Your task to perform on an android device: open a new tab in the chrome app Image 0: 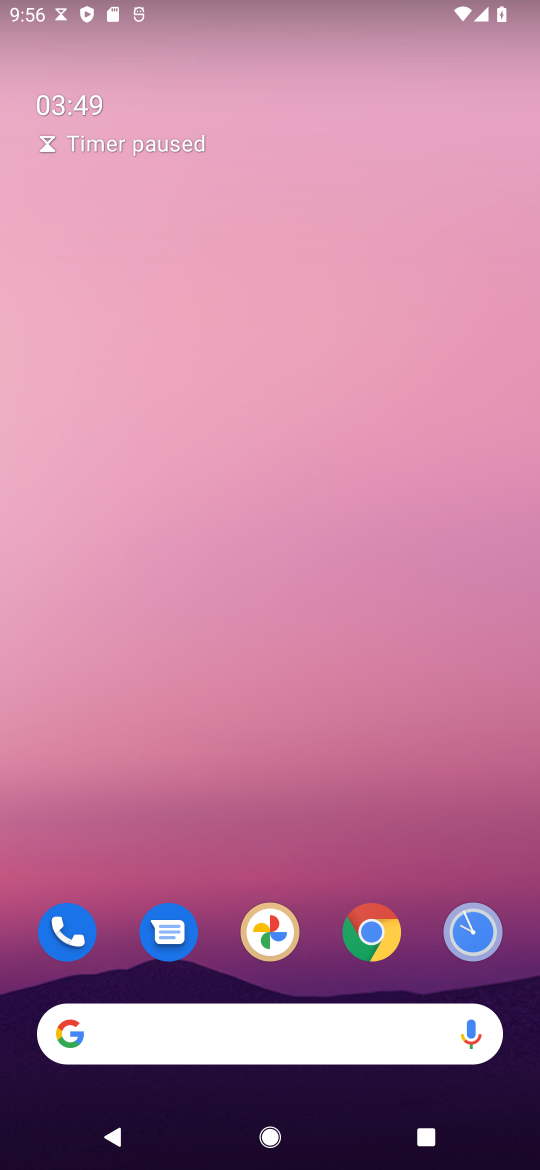
Step 0: click (369, 934)
Your task to perform on an android device: open a new tab in the chrome app Image 1: 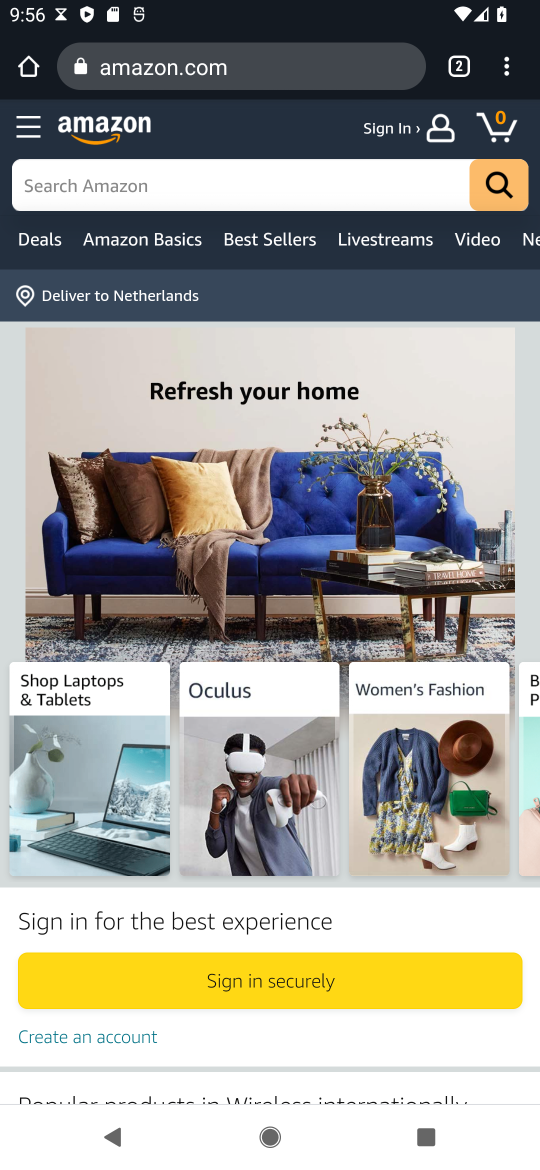
Step 1: click (512, 68)
Your task to perform on an android device: open a new tab in the chrome app Image 2: 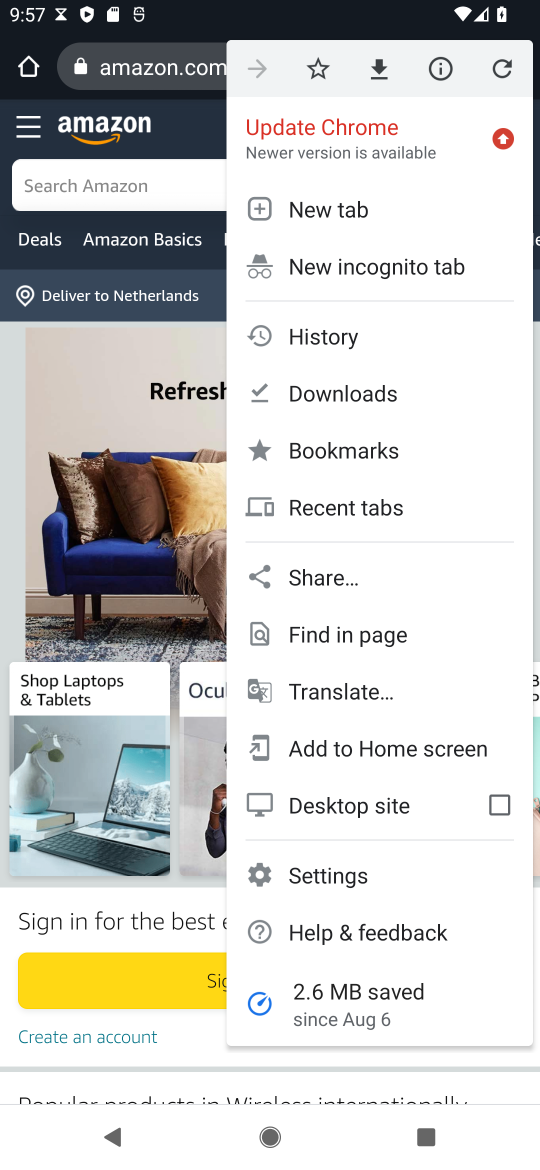
Step 2: click (349, 213)
Your task to perform on an android device: open a new tab in the chrome app Image 3: 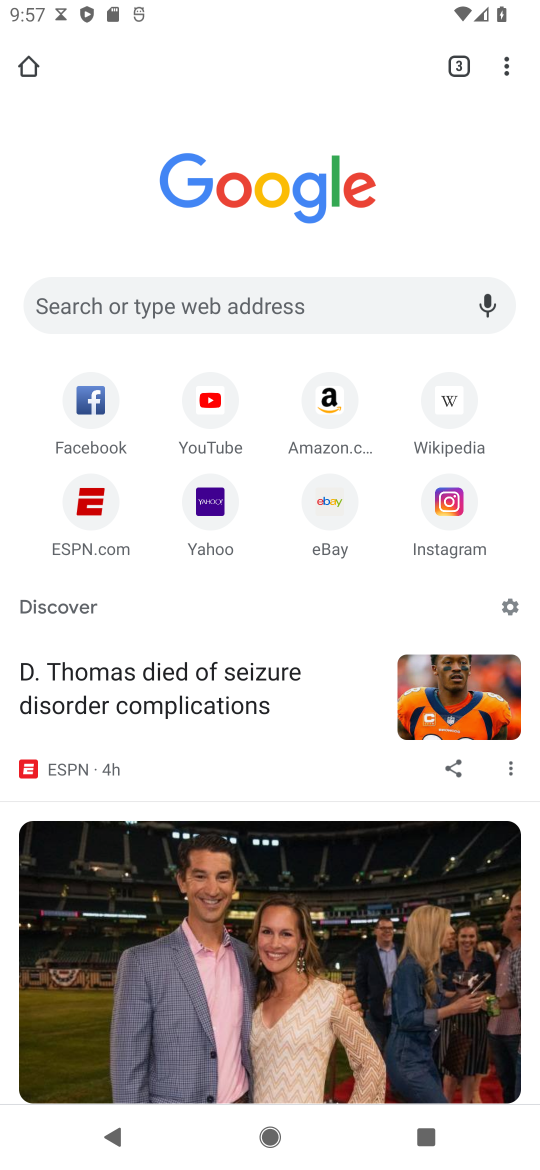
Step 3: task complete